Your task to perform on an android device: Open battery settings Image 0: 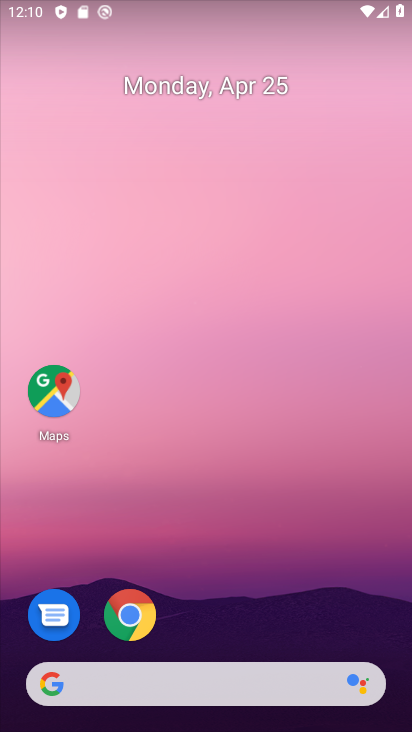
Step 0: drag from (366, 611) to (374, 123)
Your task to perform on an android device: Open battery settings Image 1: 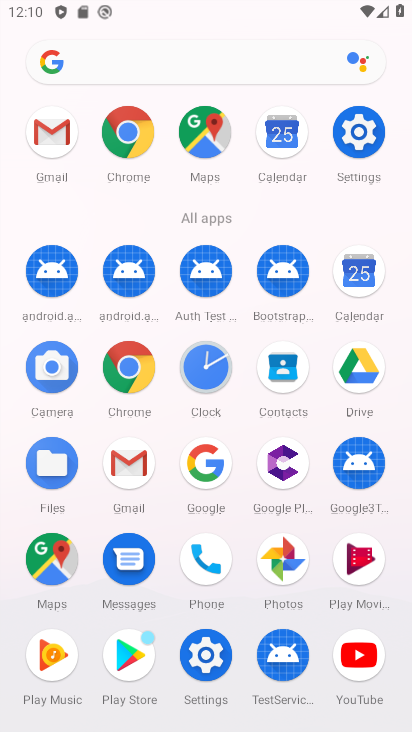
Step 1: click (362, 133)
Your task to perform on an android device: Open battery settings Image 2: 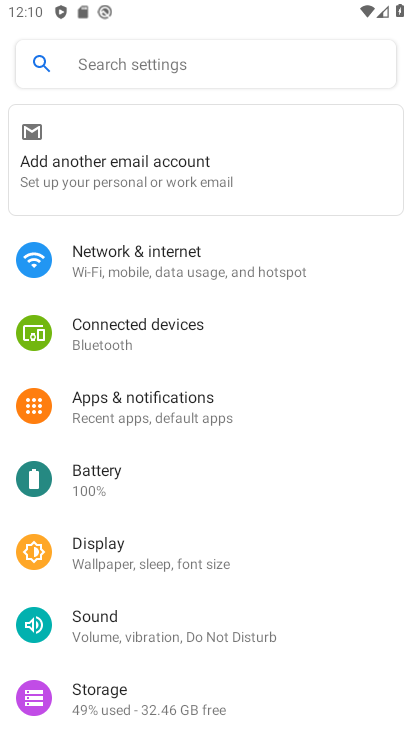
Step 2: drag from (331, 571) to (334, 434)
Your task to perform on an android device: Open battery settings Image 3: 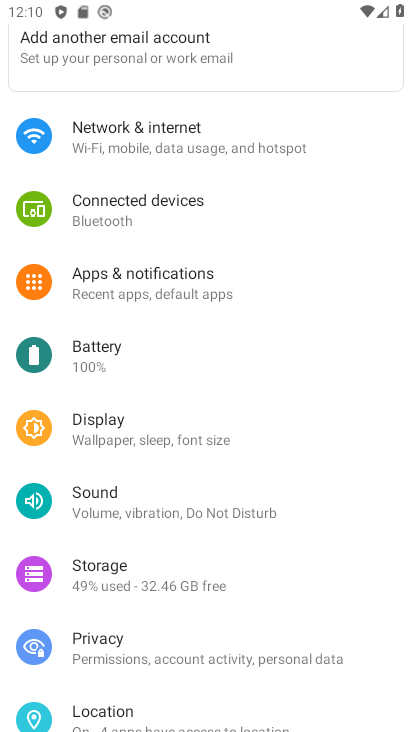
Step 3: drag from (329, 545) to (340, 476)
Your task to perform on an android device: Open battery settings Image 4: 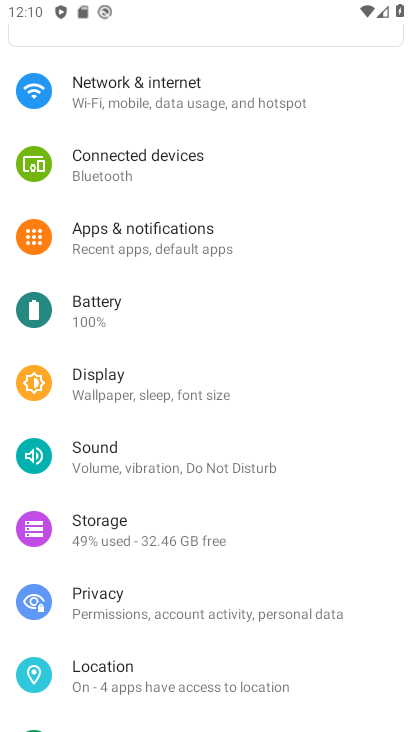
Step 4: click (252, 325)
Your task to perform on an android device: Open battery settings Image 5: 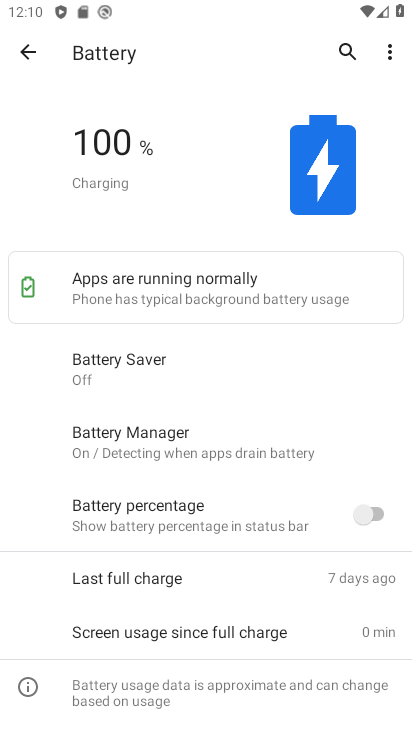
Step 5: task complete